Your task to perform on an android device: Open settings on Google Maps Image 0: 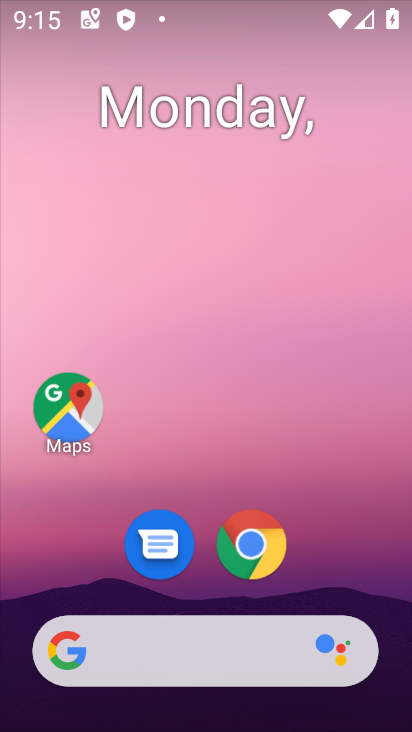
Step 0: click (66, 411)
Your task to perform on an android device: Open settings on Google Maps Image 1: 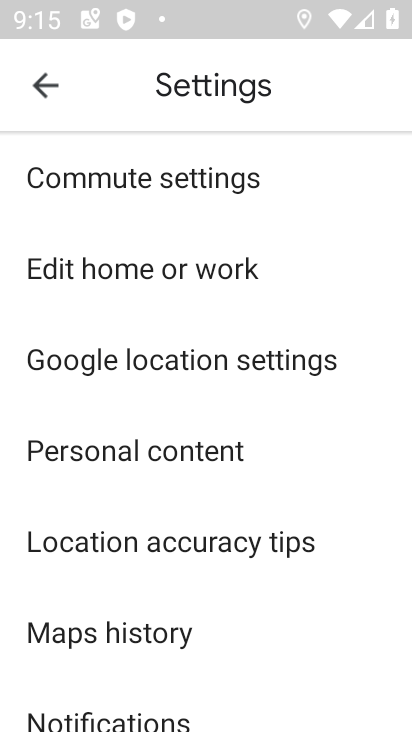
Step 1: click (44, 82)
Your task to perform on an android device: Open settings on Google Maps Image 2: 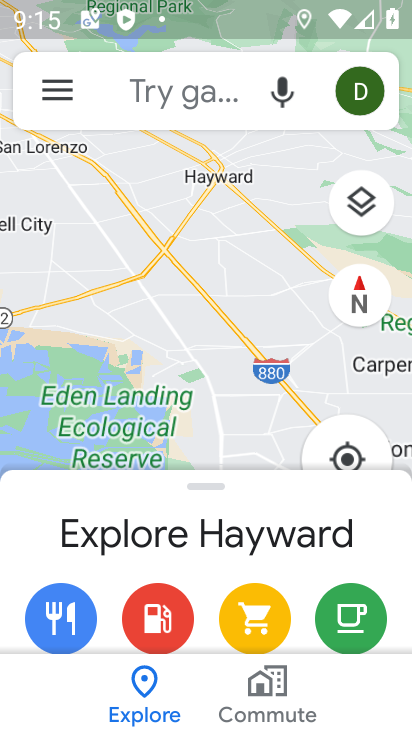
Step 2: click (51, 84)
Your task to perform on an android device: Open settings on Google Maps Image 3: 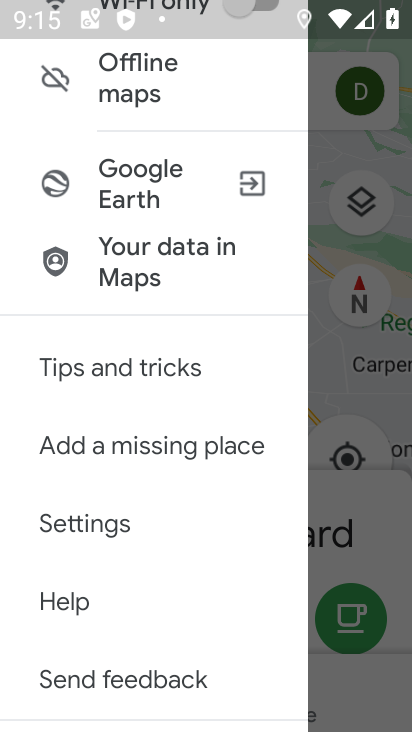
Step 3: click (62, 516)
Your task to perform on an android device: Open settings on Google Maps Image 4: 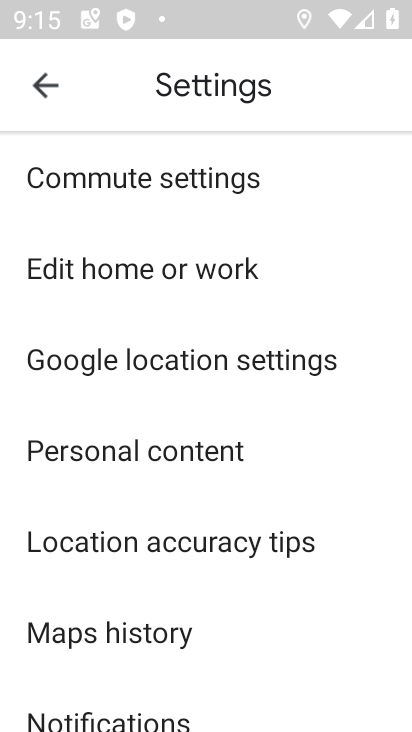
Step 4: task complete